Your task to perform on an android device: add a contact in the contacts app Image 0: 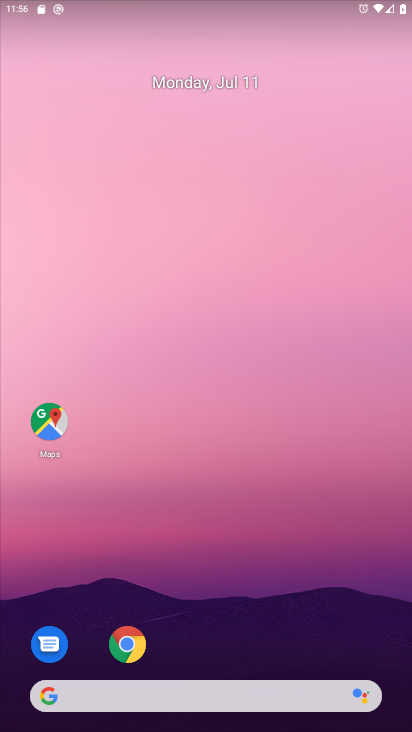
Step 0: drag from (223, 622) to (295, 174)
Your task to perform on an android device: add a contact in the contacts app Image 1: 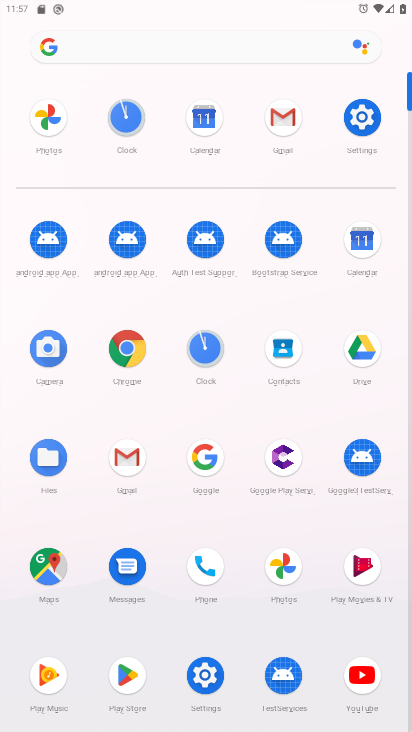
Step 1: click (280, 346)
Your task to perform on an android device: add a contact in the contacts app Image 2: 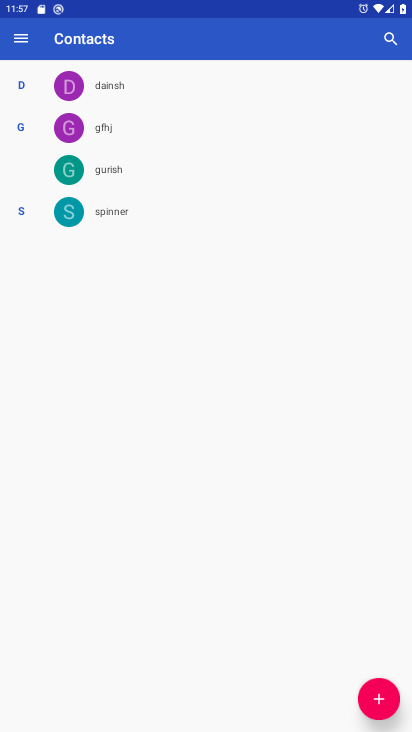
Step 2: click (374, 695)
Your task to perform on an android device: add a contact in the contacts app Image 3: 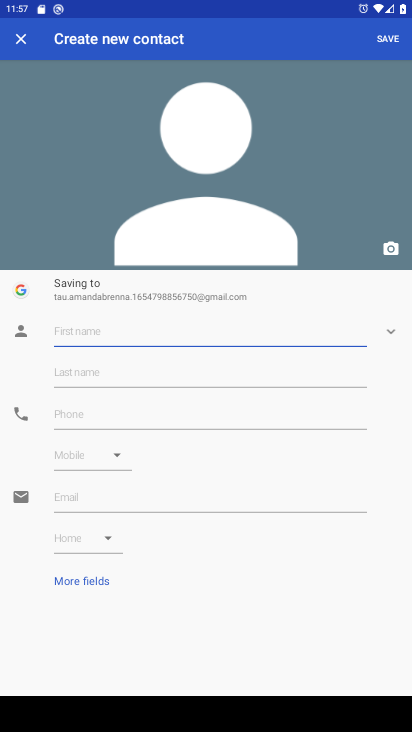
Step 3: type "mk"
Your task to perform on an android device: add a contact in the contacts app Image 4: 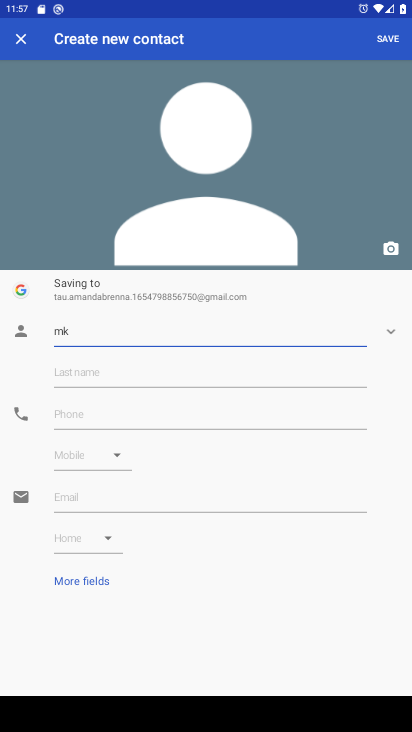
Step 4: click (311, 408)
Your task to perform on an android device: add a contact in the contacts app Image 5: 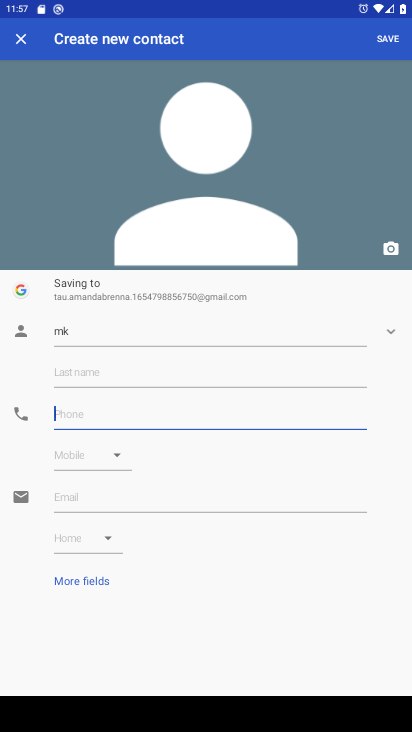
Step 5: type "4567890987"
Your task to perform on an android device: add a contact in the contacts app Image 6: 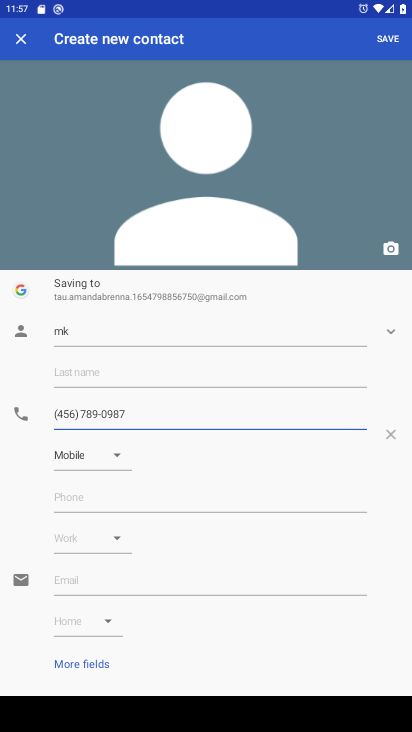
Step 6: click (400, 37)
Your task to perform on an android device: add a contact in the contacts app Image 7: 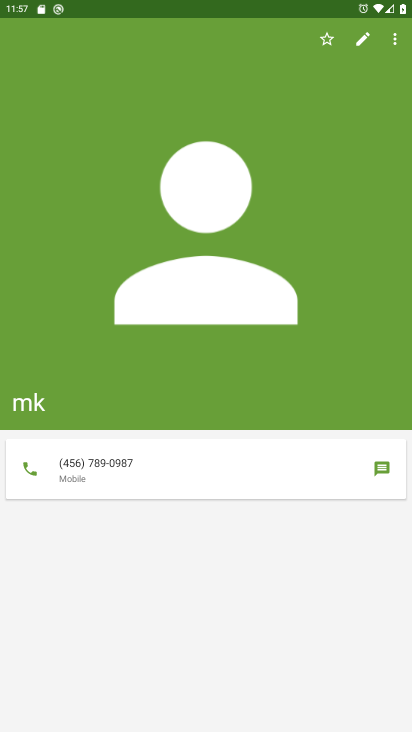
Step 7: task complete